Your task to perform on an android device: Open the calendar app, open the side menu, and click the "Day" option Image 0: 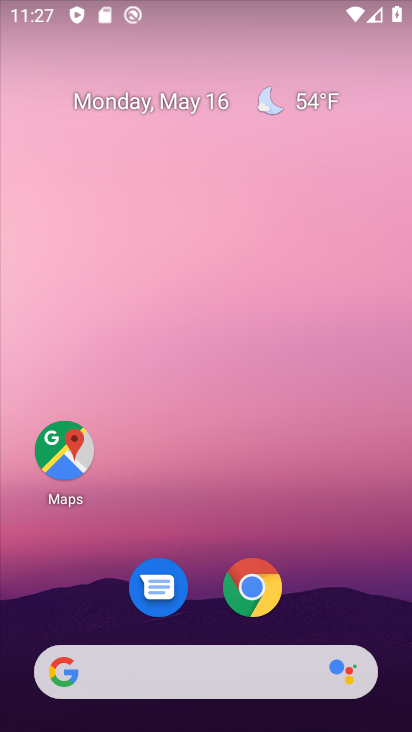
Step 0: drag from (194, 607) to (272, 136)
Your task to perform on an android device: Open the calendar app, open the side menu, and click the "Day" option Image 1: 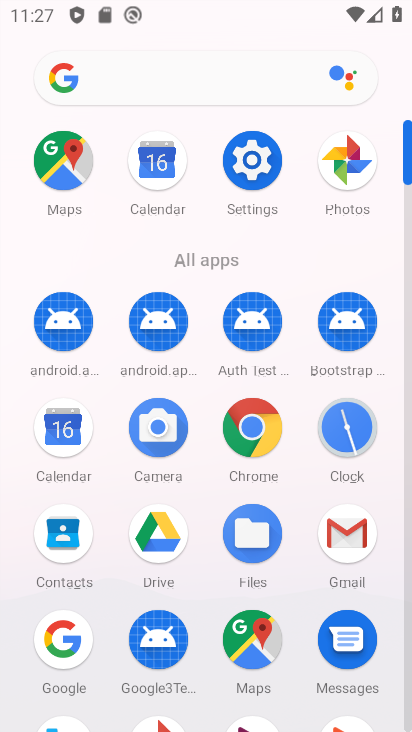
Step 1: click (70, 440)
Your task to perform on an android device: Open the calendar app, open the side menu, and click the "Day" option Image 2: 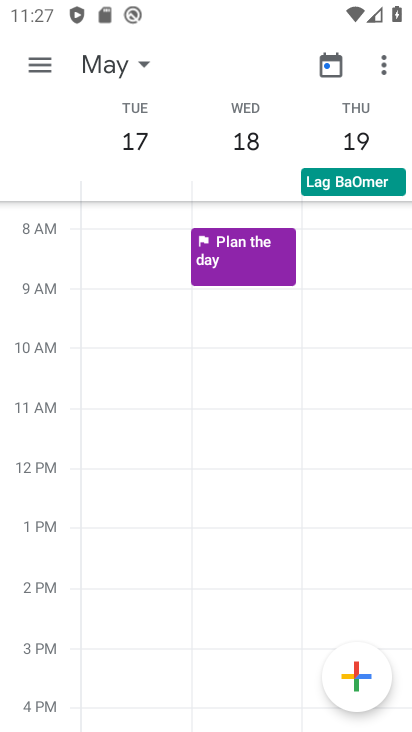
Step 2: click (48, 58)
Your task to perform on an android device: Open the calendar app, open the side menu, and click the "Day" option Image 3: 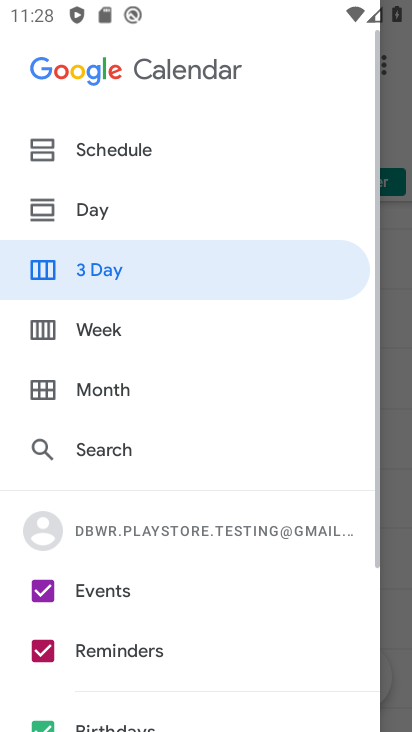
Step 3: click (102, 216)
Your task to perform on an android device: Open the calendar app, open the side menu, and click the "Day" option Image 4: 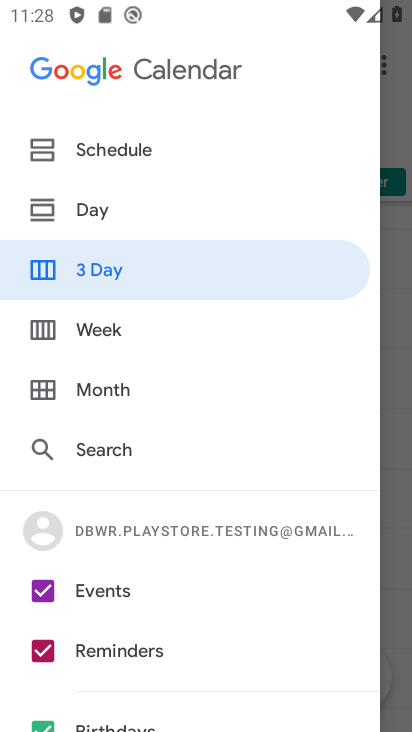
Step 4: click (102, 215)
Your task to perform on an android device: Open the calendar app, open the side menu, and click the "Day" option Image 5: 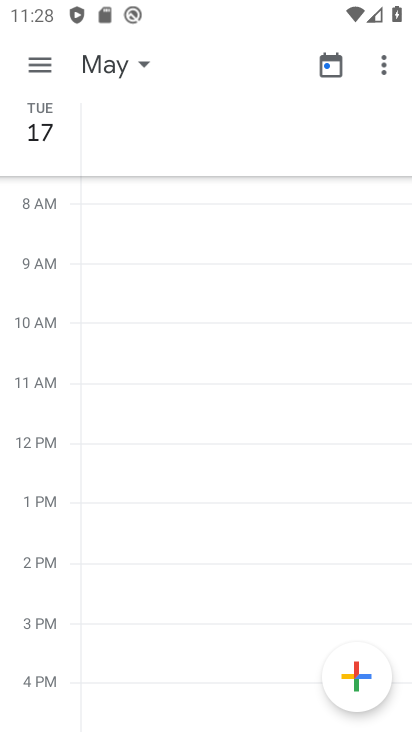
Step 5: task complete